Your task to perform on an android device: Open Google Chrome and open the bookmarks view Image 0: 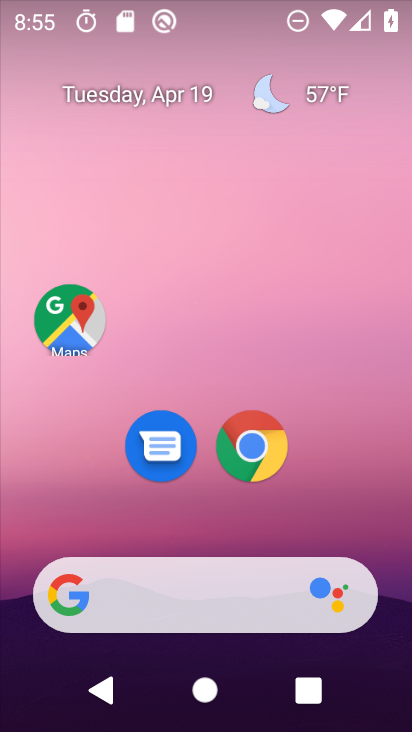
Step 0: press home button
Your task to perform on an android device: Open Google Chrome and open the bookmarks view Image 1: 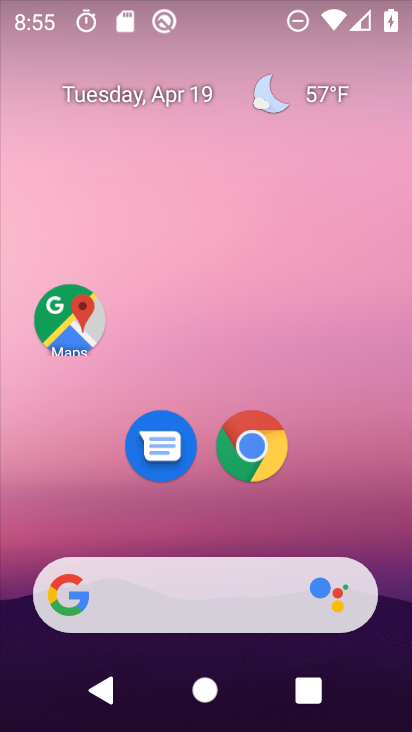
Step 1: click (277, 457)
Your task to perform on an android device: Open Google Chrome and open the bookmarks view Image 2: 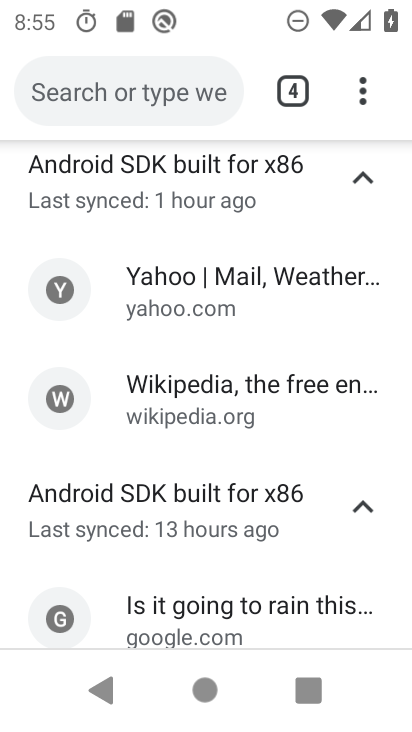
Step 2: click (354, 88)
Your task to perform on an android device: Open Google Chrome and open the bookmarks view Image 3: 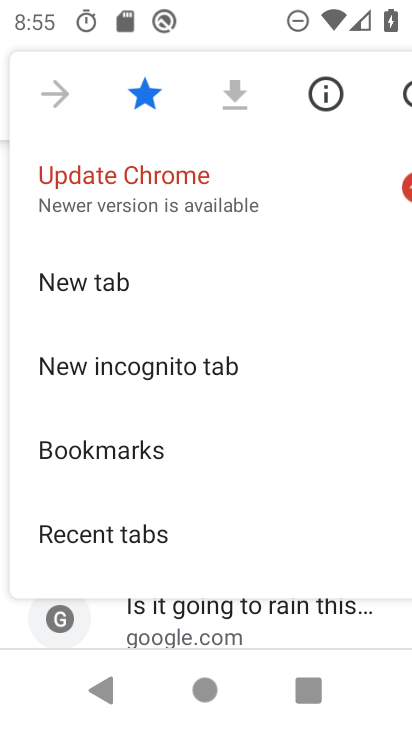
Step 3: click (108, 452)
Your task to perform on an android device: Open Google Chrome and open the bookmarks view Image 4: 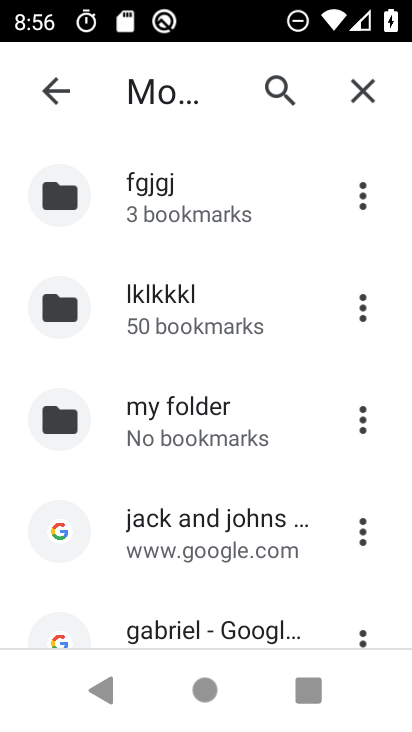
Step 4: task complete